Your task to perform on an android device: change the clock display to show seconds Image 0: 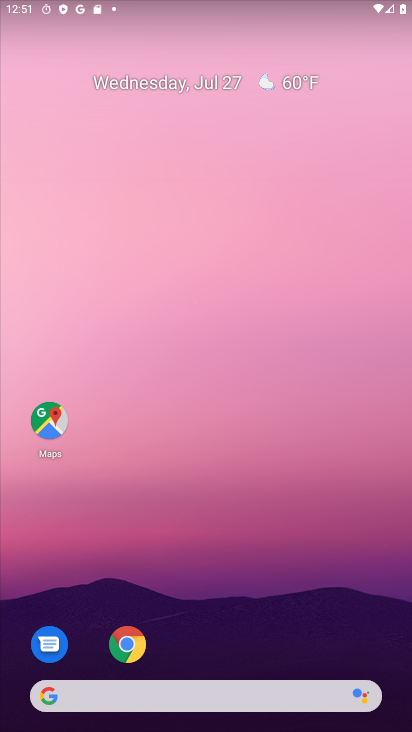
Step 0: drag from (202, 659) to (264, 324)
Your task to perform on an android device: change the clock display to show seconds Image 1: 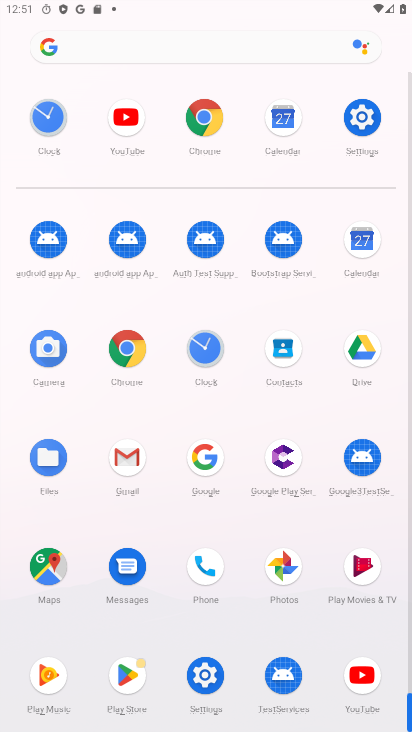
Step 1: click (189, 342)
Your task to perform on an android device: change the clock display to show seconds Image 2: 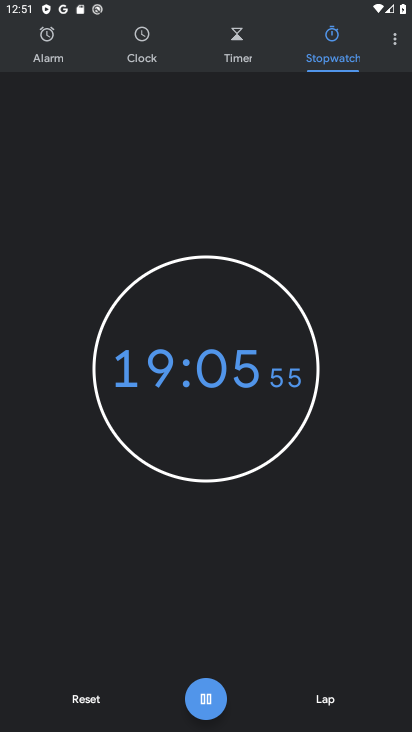
Step 2: drag from (198, 592) to (229, 276)
Your task to perform on an android device: change the clock display to show seconds Image 3: 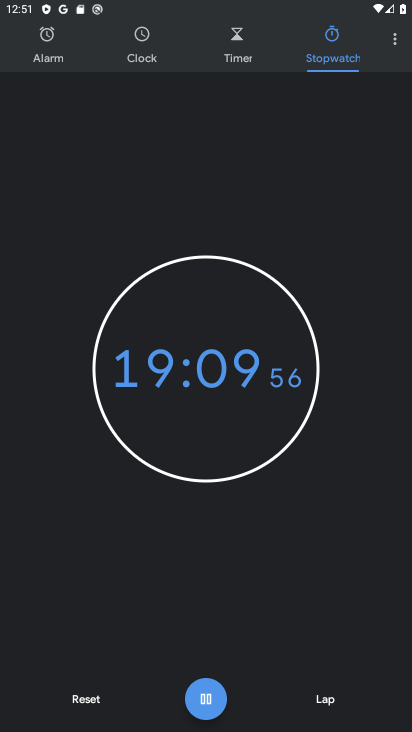
Step 3: click (397, 41)
Your task to perform on an android device: change the clock display to show seconds Image 4: 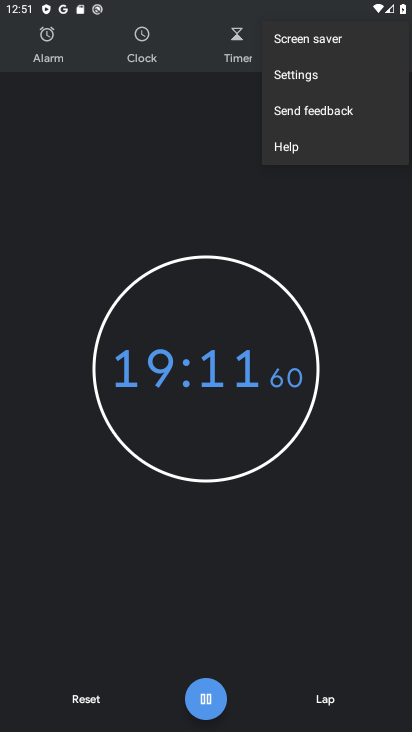
Step 4: click (333, 65)
Your task to perform on an android device: change the clock display to show seconds Image 5: 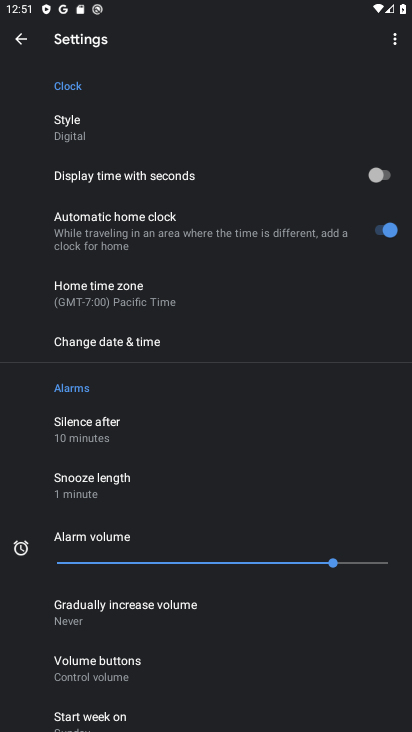
Step 5: click (211, 179)
Your task to perform on an android device: change the clock display to show seconds Image 6: 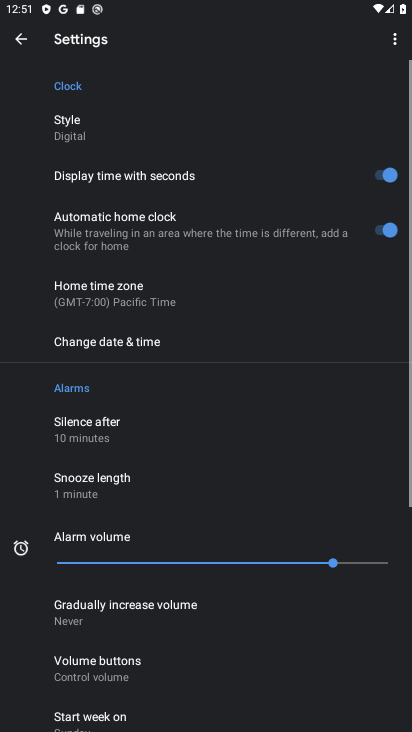
Step 6: task complete